Your task to perform on an android device: Open the stopwatch Image 0: 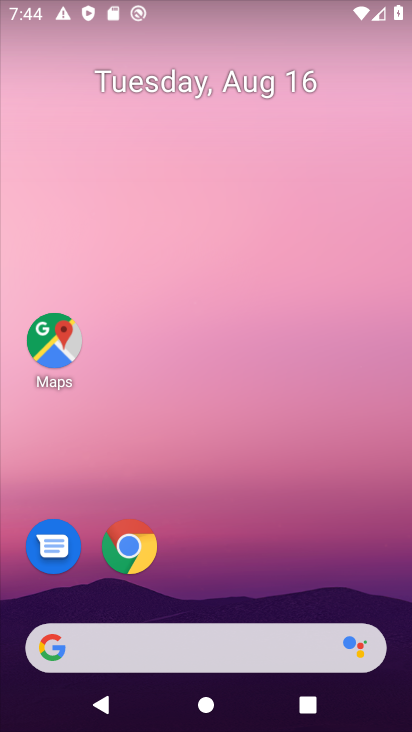
Step 0: drag from (249, 517) to (259, 0)
Your task to perform on an android device: Open the stopwatch Image 1: 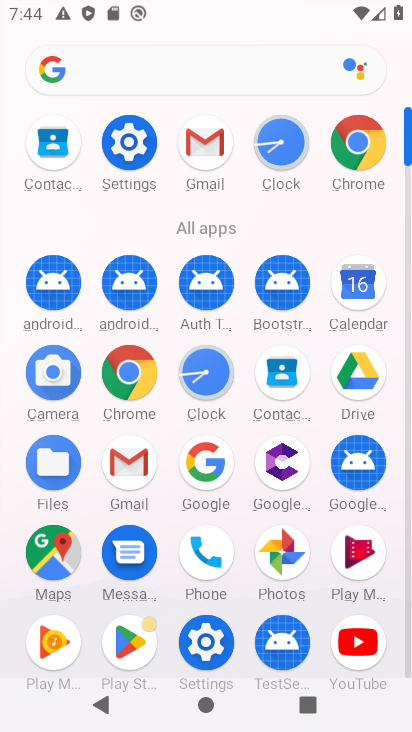
Step 1: click (279, 141)
Your task to perform on an android device: Open the stopwatch Image 2: 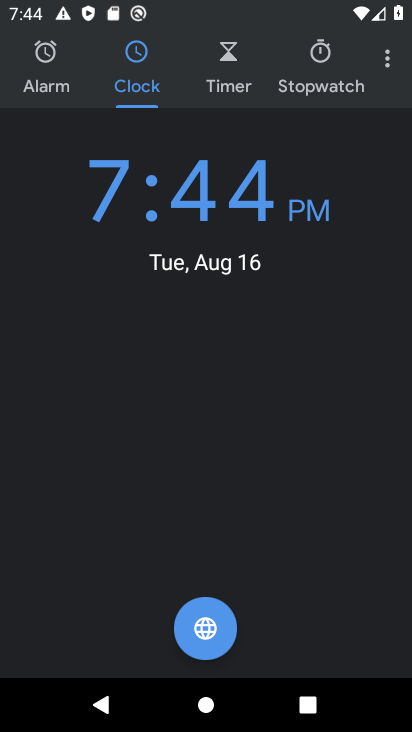
Step 2: click (327, 72)
Your task to perform on an android device: Open the stopwatch Image 3: 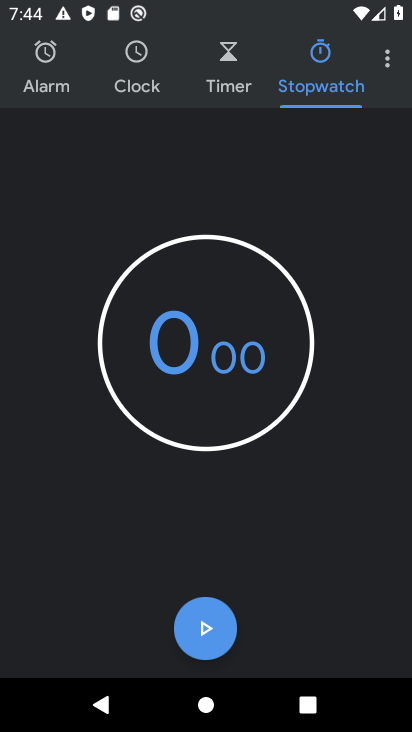
Step 3: task complete